Your task to perform on an android device: Open accessibility settings Image 0: 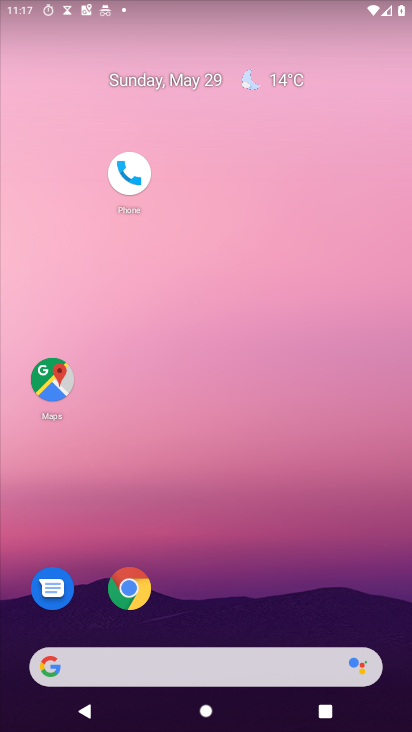
Step 0: drag from (257, 657) to (220, 159)
Your task to perform on an android device: Open accessibility settings Image 1: 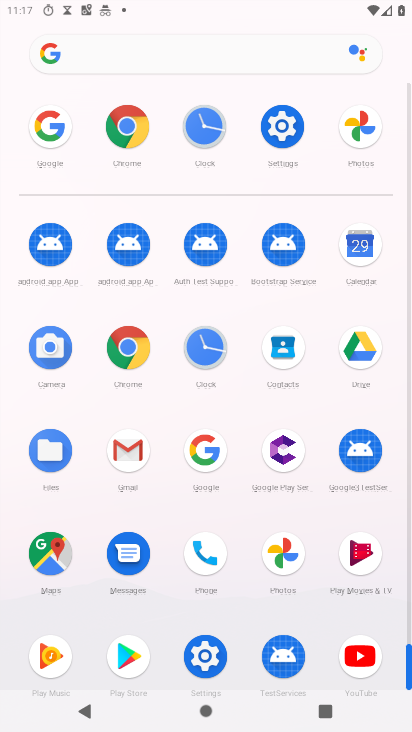
Step 1: click (274, 135)
Your task to perform on an android device: Open accessibility settings Image 2: 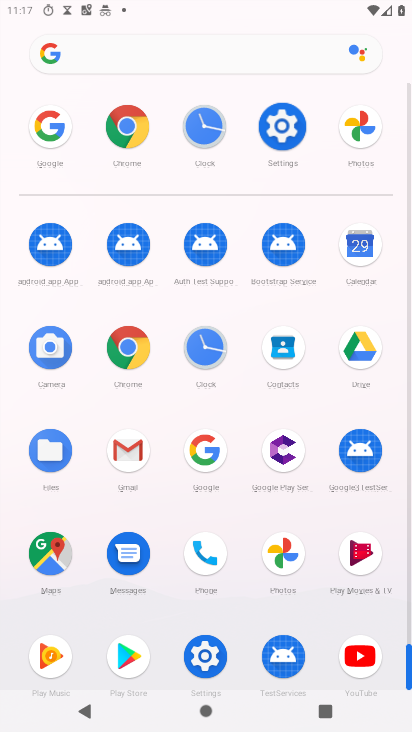
Step 2: click (275, 135)
Your task to perform on an android device: Open accessibility settings Image 3: 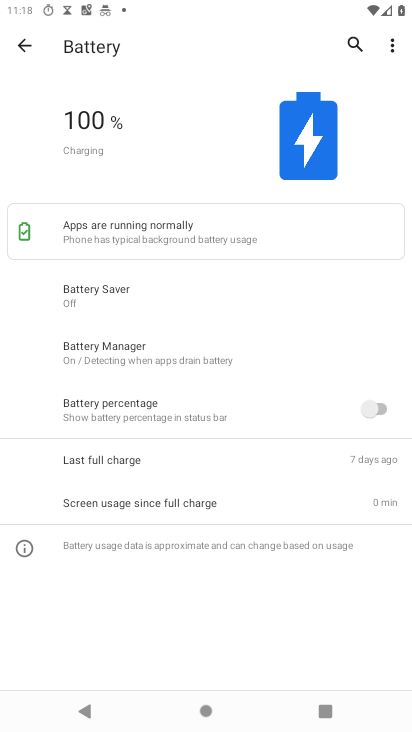
Step 3: click (29, 47)
Your task to perform on an android device: Open accessibility settings Image 4: 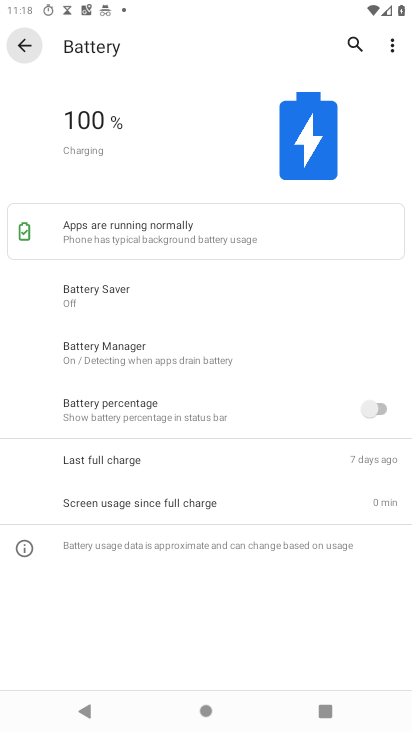
Step 4: click (29, 47)
Your task to perform on an android device: Open accessibility settings Image 5: 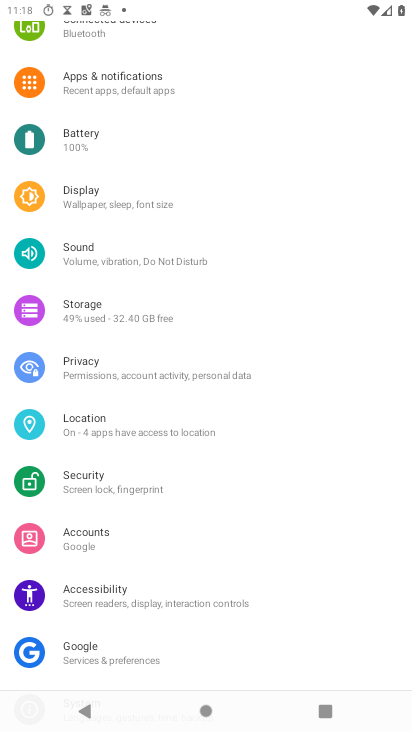
Step 5: click (100, 605)
Your task to perform on an android device: Open accessibility settings Image 6: 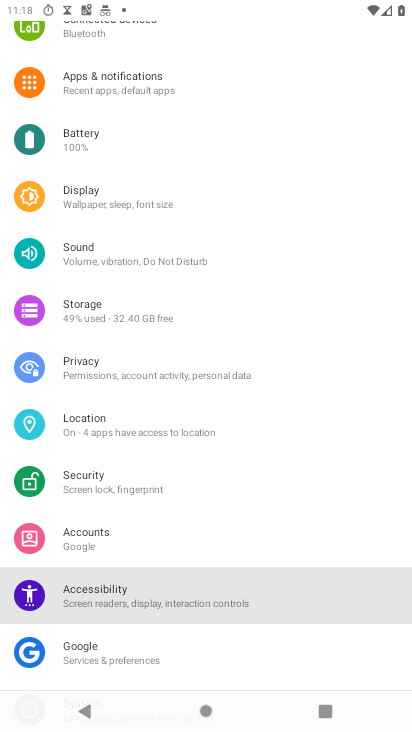
Step 6: click (97, 603)
Your task to perform on an android device: Open accessibility settings Image 7: 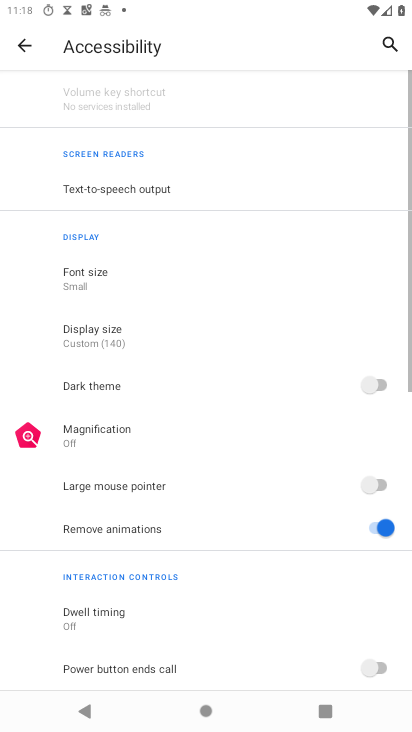
Step 7: click (96, 594)
Your task to perform on an android device: Open accessibility settings Image 8: 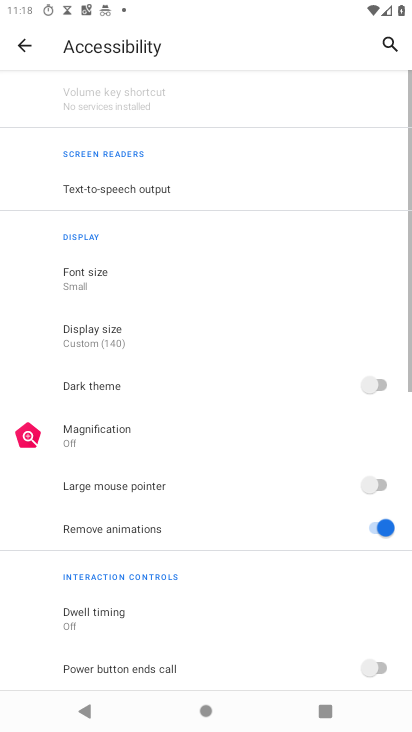
Step 8: click (96, 594)
Your task to perform on an android device: Open accessibility settings Image 9: 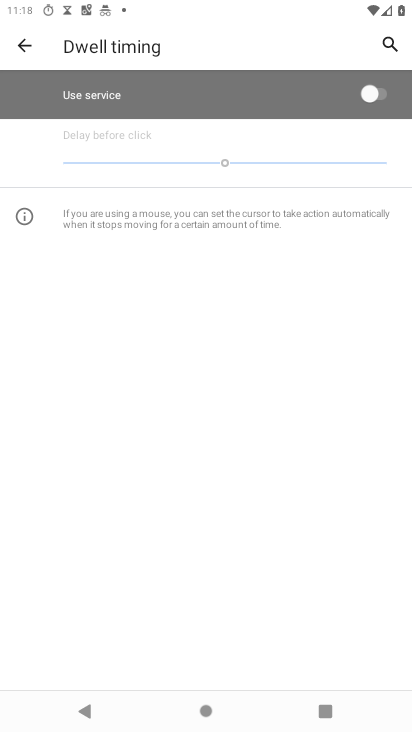
Step 9: click (27, 43)
Your task to perform on an android device: Open accessibility settings Image 10: 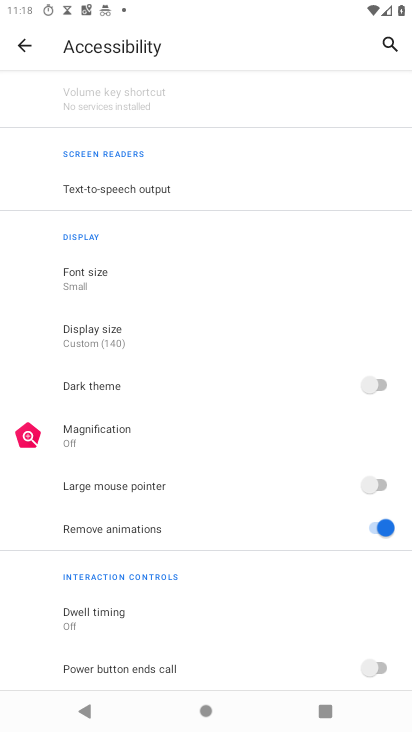
Step 10: task complete